Your task to perform on an android device: What's the weather? Image 0: 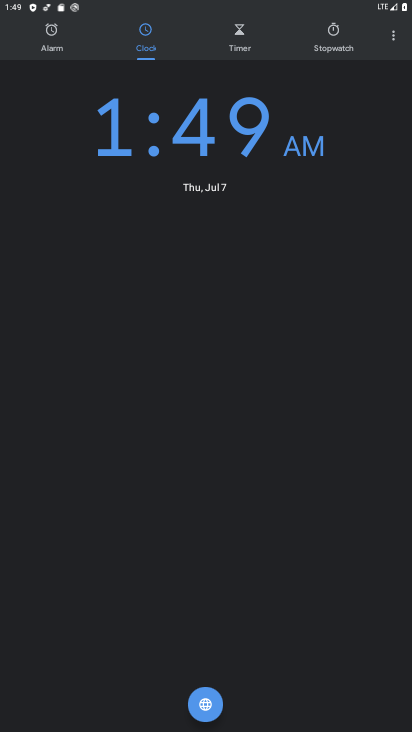
Step 0: press home button
Your task to perform on an android device: What's the weather? Image 1: 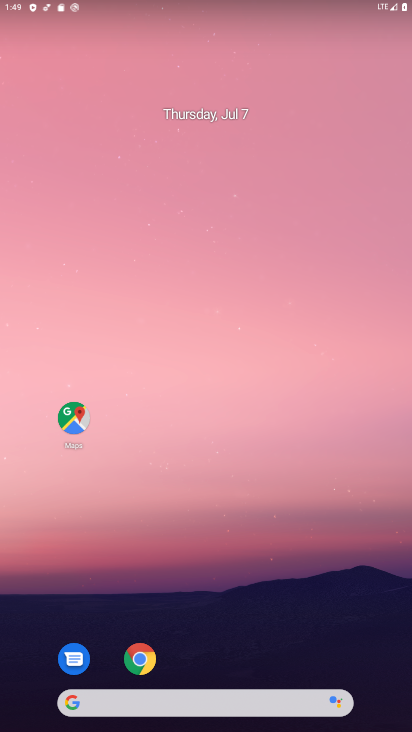
Step 1: drag from (304, 655) to (155, 76)
Your task to perform on an android device: What's the weather? Image 2: 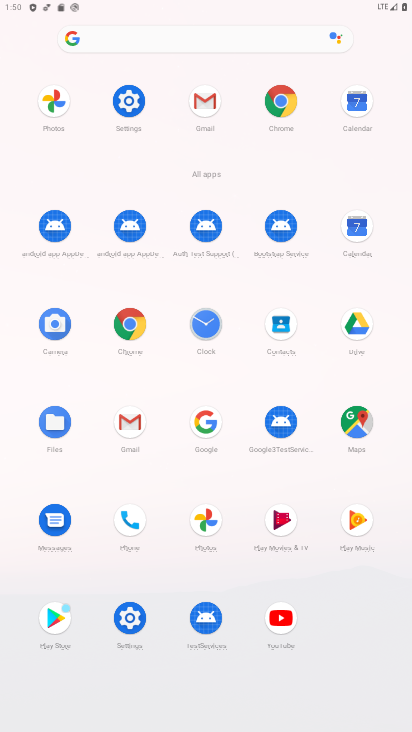
Step 2: click (282, 100)
Your task to perform on an android device: What's the weather? Image 3: 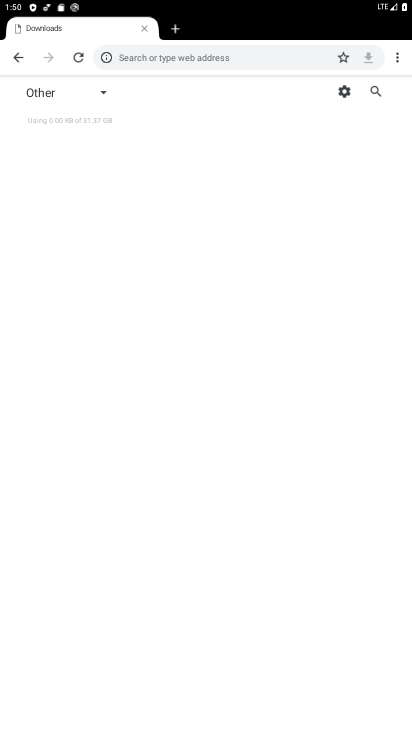
Step 3: click (155, 56)
Your task to perform on an android device: What's the weather? Image 4: 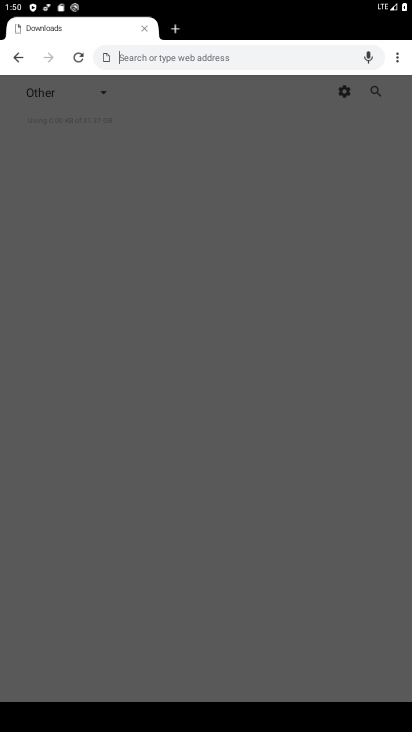
Step 4: type "Weather"
Your task to perform on an android device: What's the weather? Image 5: 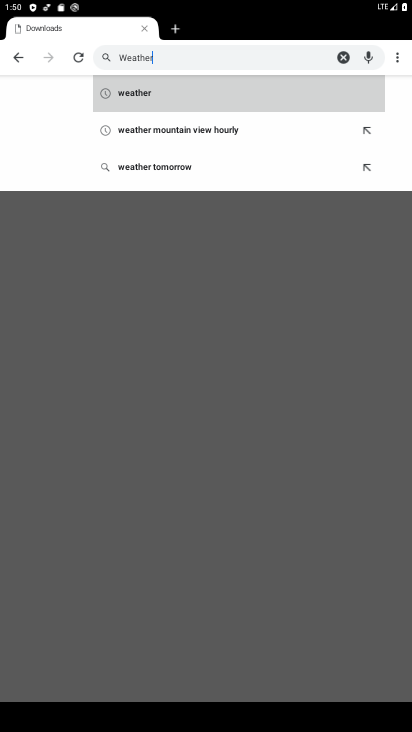
Step 5: click (141, 95)
Your task to perform on an android device: What's the weather? Image 6: 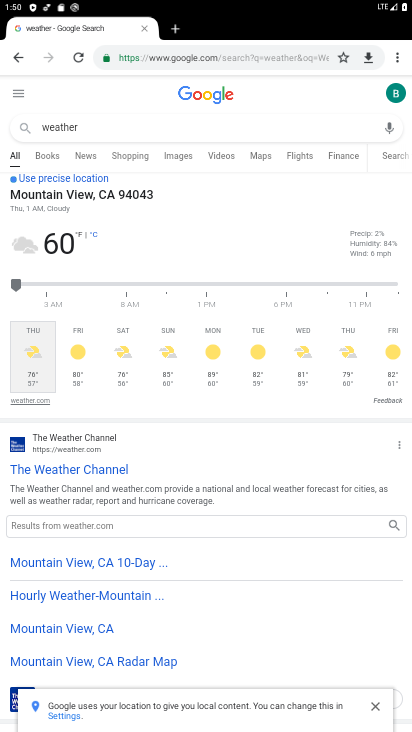
Step 6: task complete